Your task to perform on an android device: change the upload size in google photos Image 0: 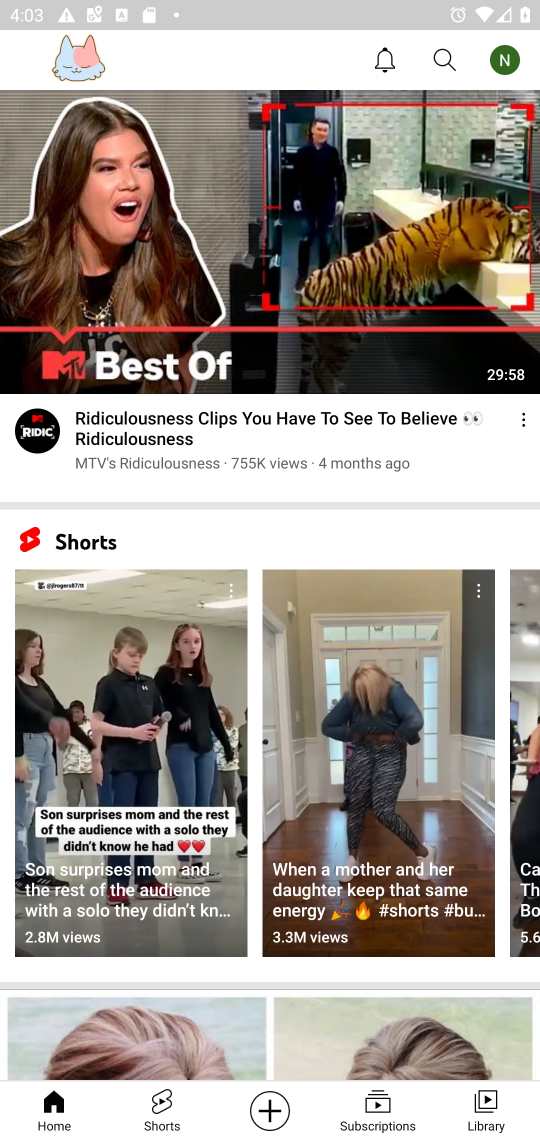
Step 0: press home button
Your task to perform on an android device: change the upload size in google photos Image 1: 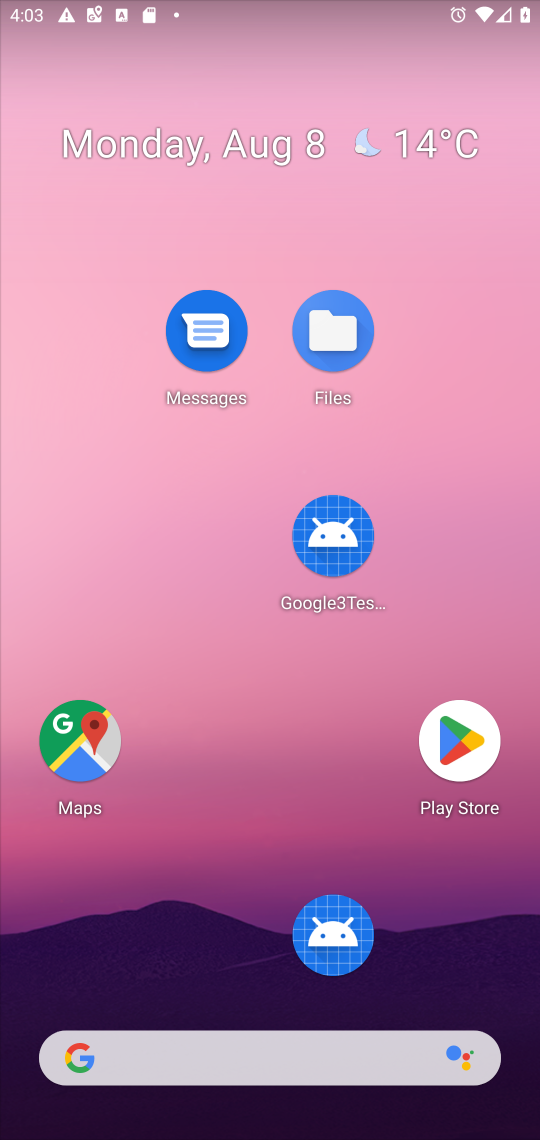
Step 1: drag from (183, 1087) to (361, 217)
Your task to perform on an android device: change the upload size in google photos Image 2: 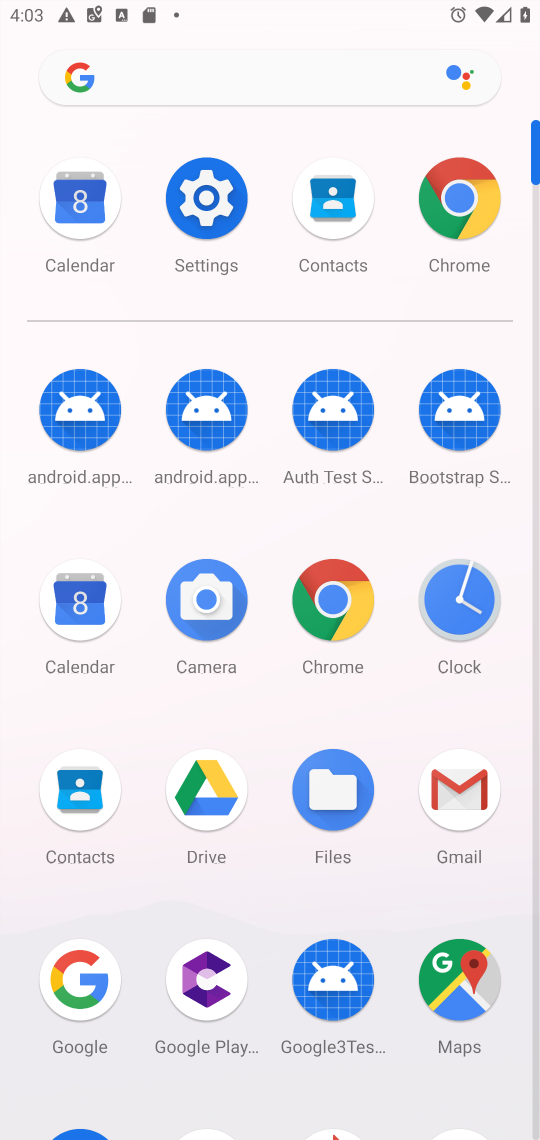
Step 2: drag from (381, 902) to (481, 579)
Your task to perform on an android device: change the upload size in google photos Image 3: 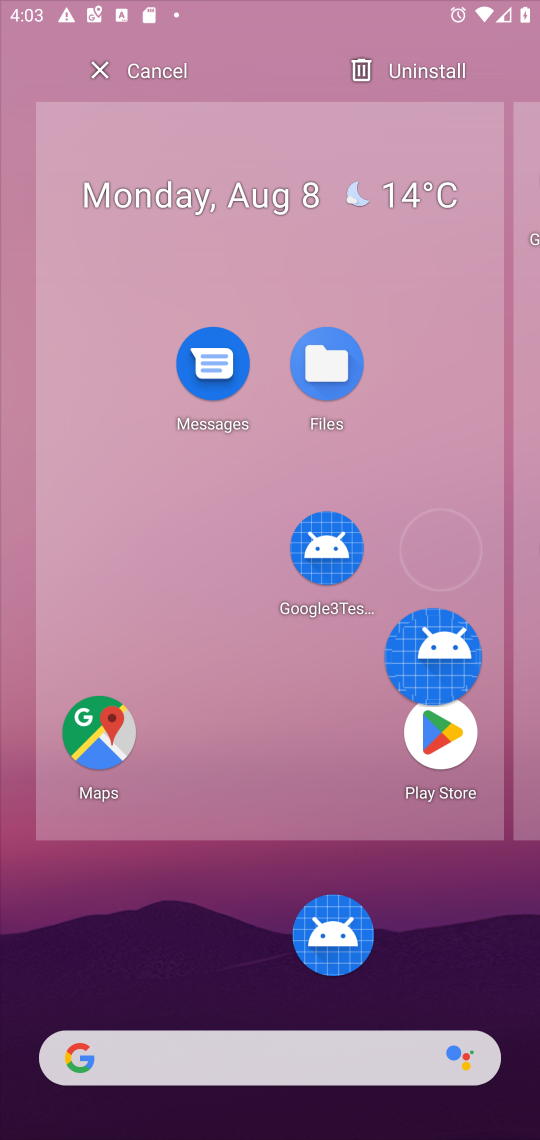
Step 3: click (337, 677)
Your task to perform on an android device: change the upload size in google photos Image 4: 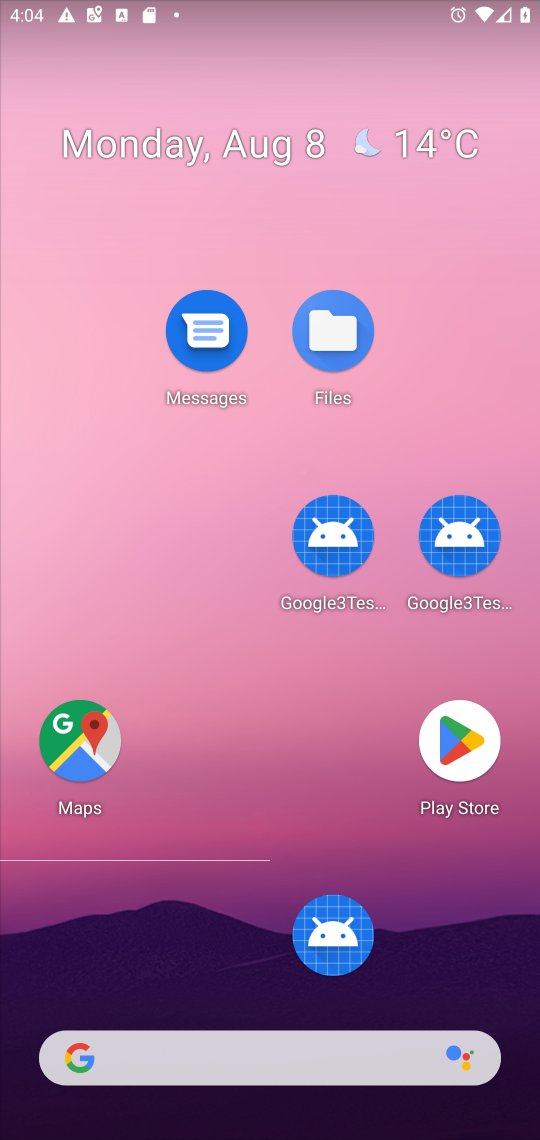
Step 4: drag from (194, 1032) to (180, 160)
Your task to perform on an android device: change the upload size in google photos Image 5: 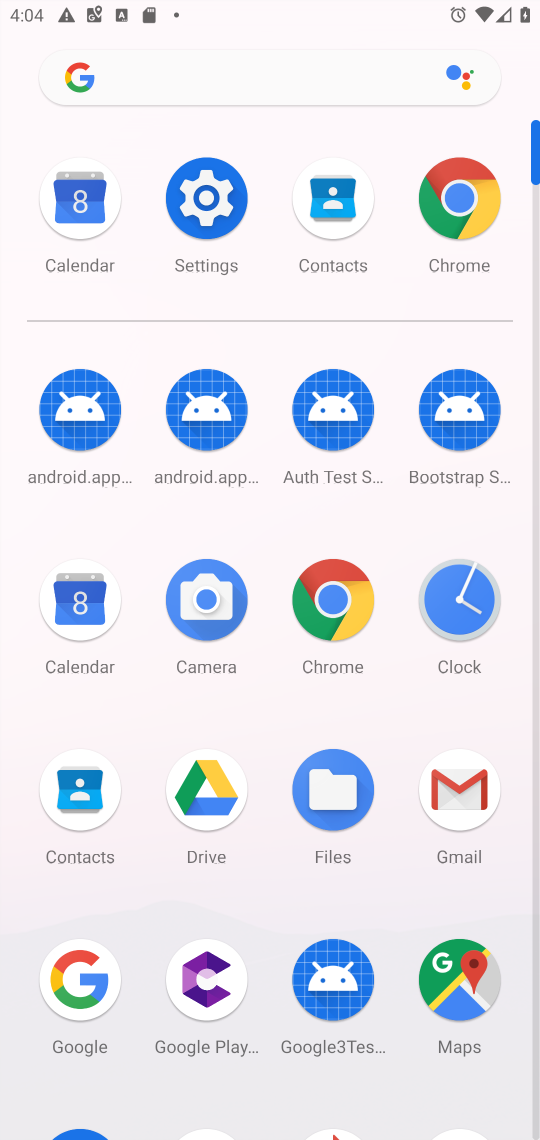
Step 5: drag from (393, 944) to (391, 335)
Your task to perform on an android device: change the upload size in google photos Image 6: 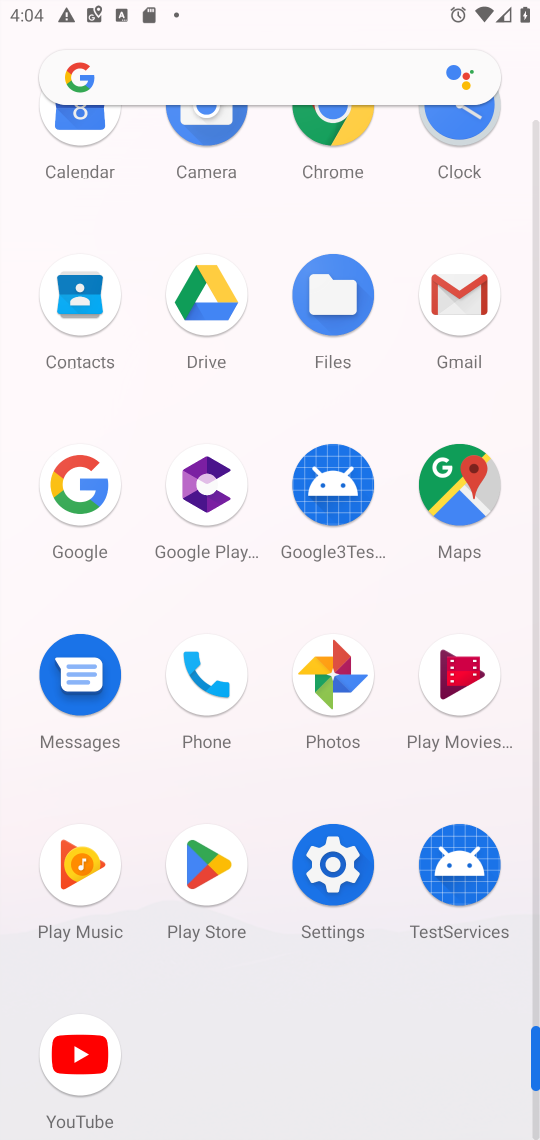
Step 6: click (330, 683)
Your task to perform on an android device: change the upload size in google photos Image 7: 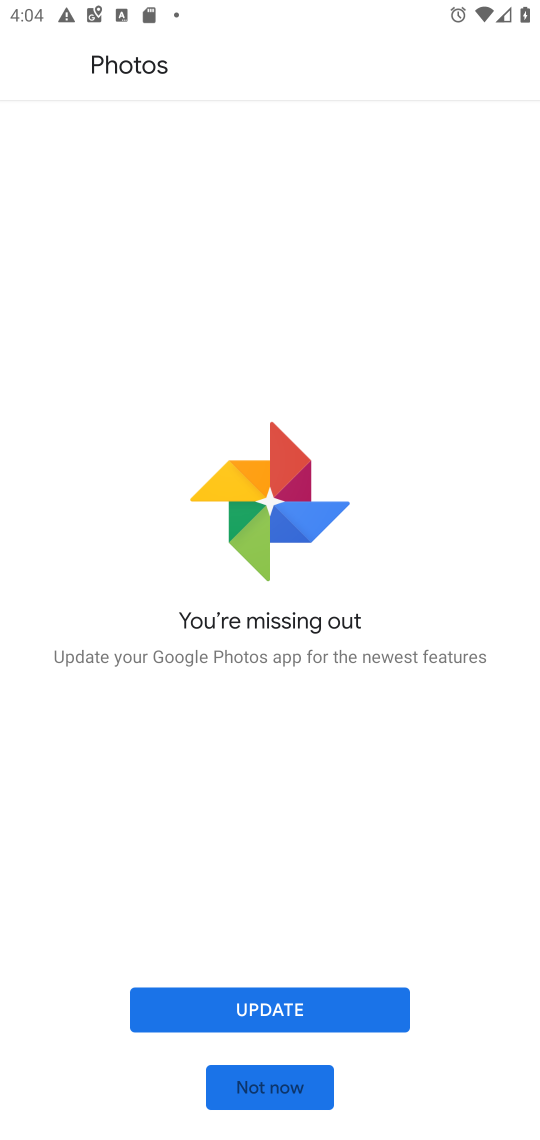
Step 7: click (278, 1011)
Your task to perform on an android device: change the upload size in google photos Image 8: 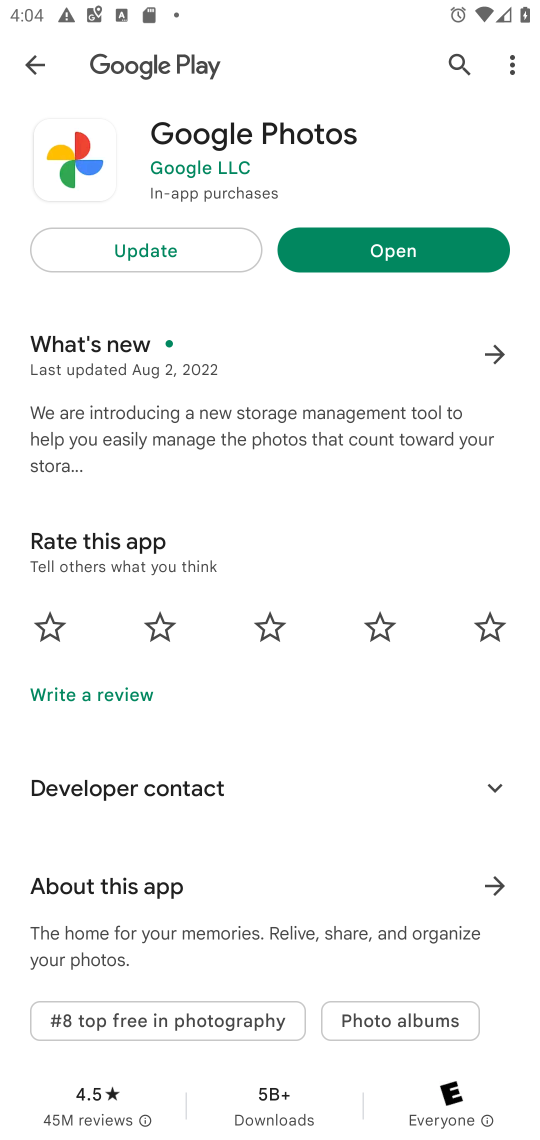
Step 8: click (200, 249)
Your task to perform on an android device: change the upload size in google photos Image 9: 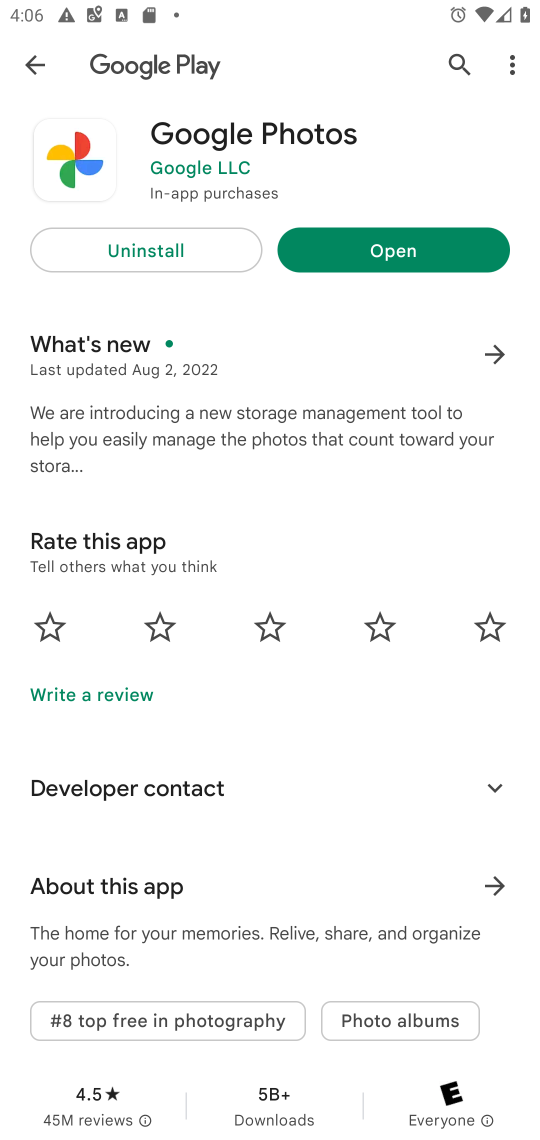
Step 9: click (417, 244)
Your task to perform on an android device: change the upload size in google photos Image 10: 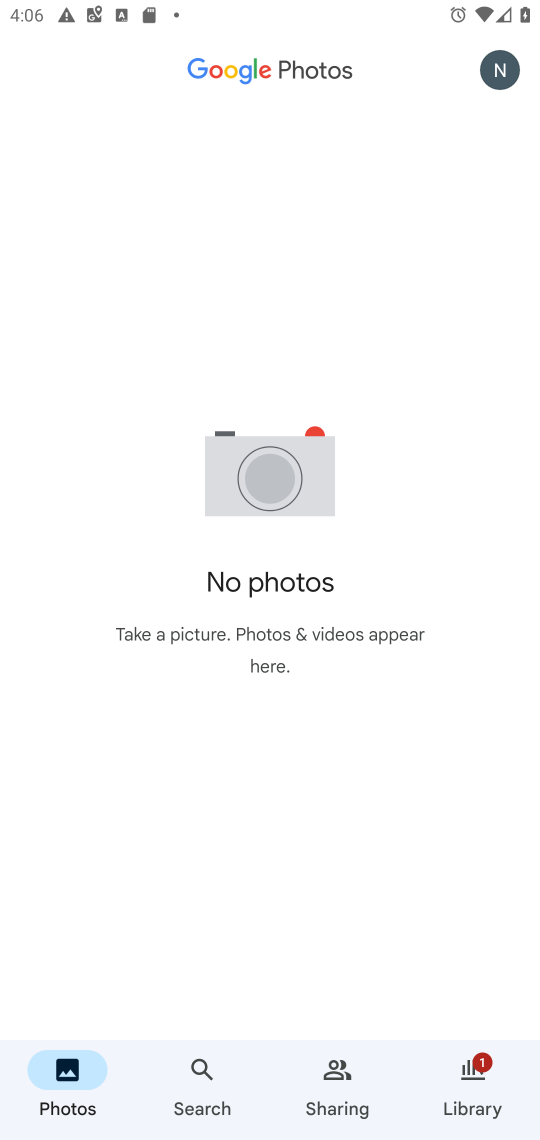
Step 10: click (490, 69)
Your task to perform on an android device: change the upload size in google photos Image 11: 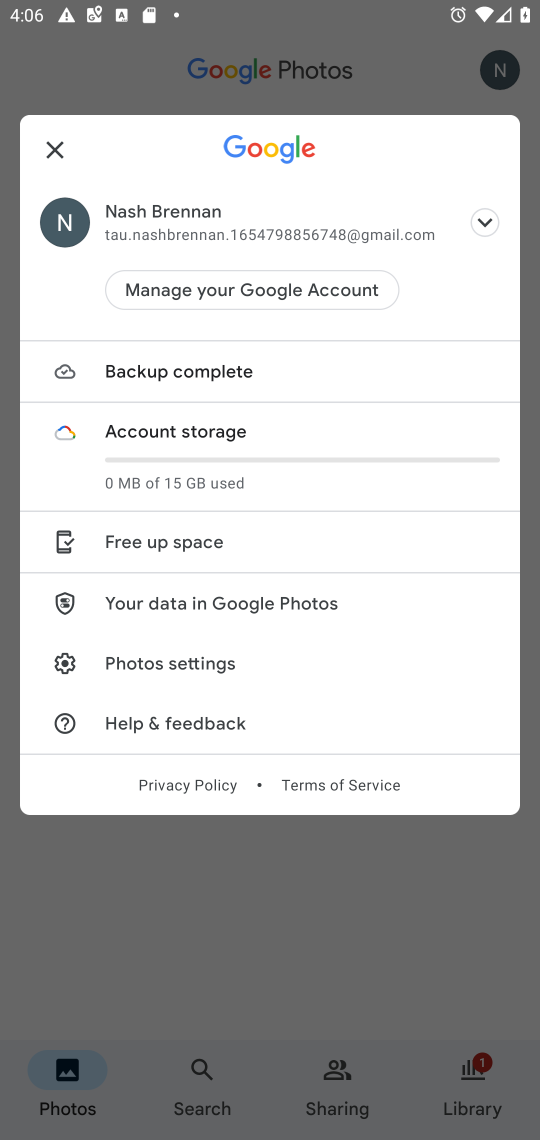
Step 11: click (136, 659)
Your task to perform on an android device: change the upload size in google photos Image 12: 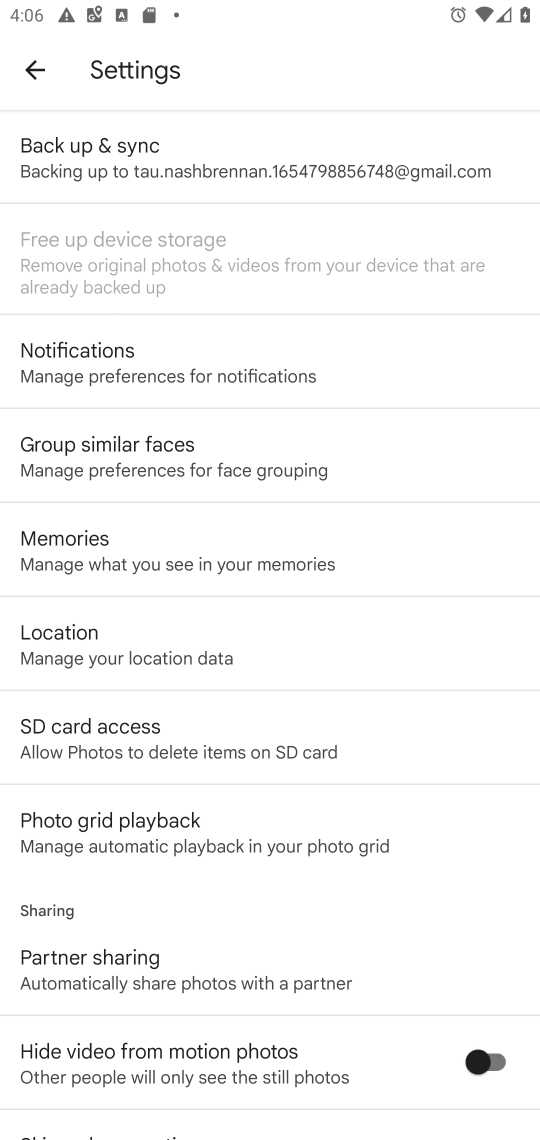
Step 12: click (222, 168)
Your task to perform on an android device: change the upload size in google photos Image 13: 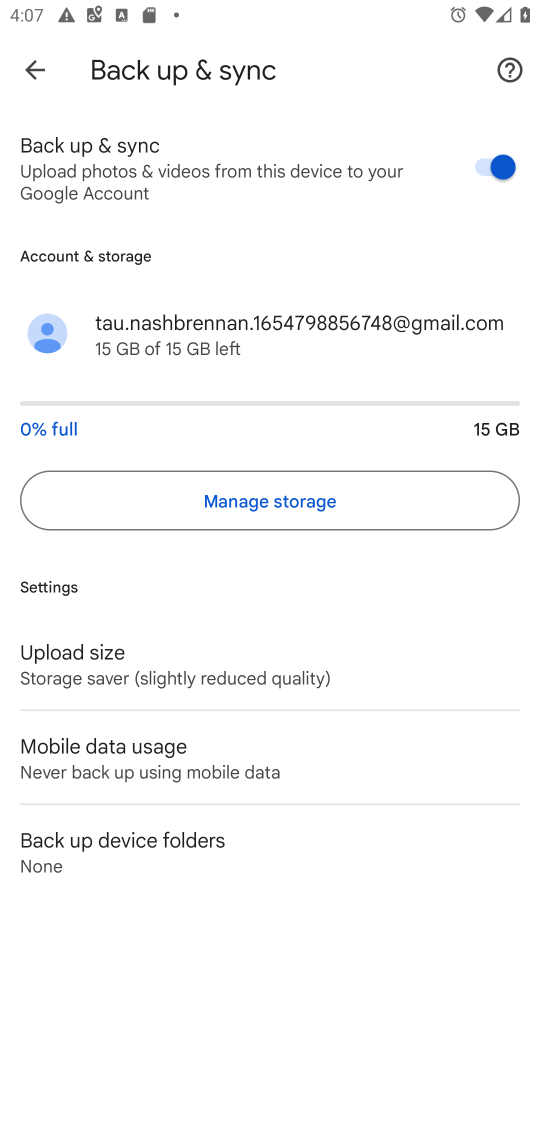
Step 13: click (132, 681)
Your task to perform on an android device: change the upload size in google photos Image 14: 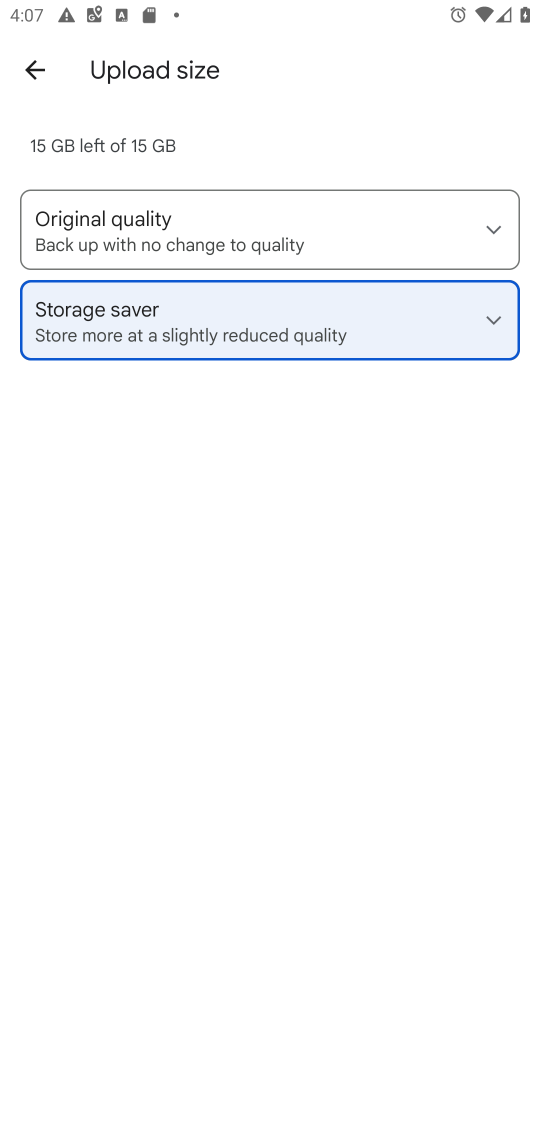
Step 14: click (115, 211)
Your task to perform on an android device: change the upload size in google photos Image 15: 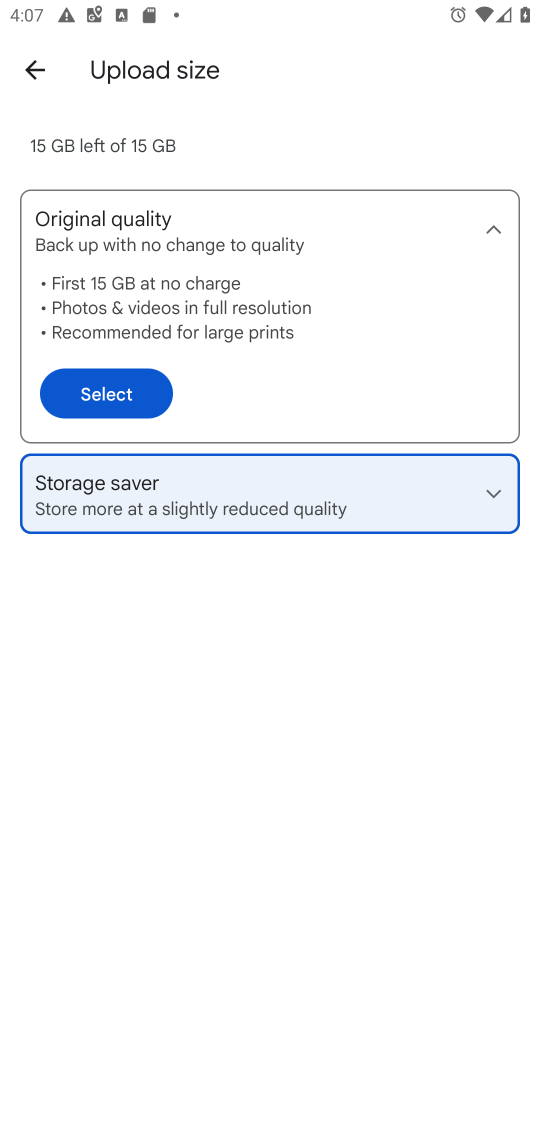
Step 15: click (122, 379)
Your task to perform on an android device: change the upload size in google photos Image 16: 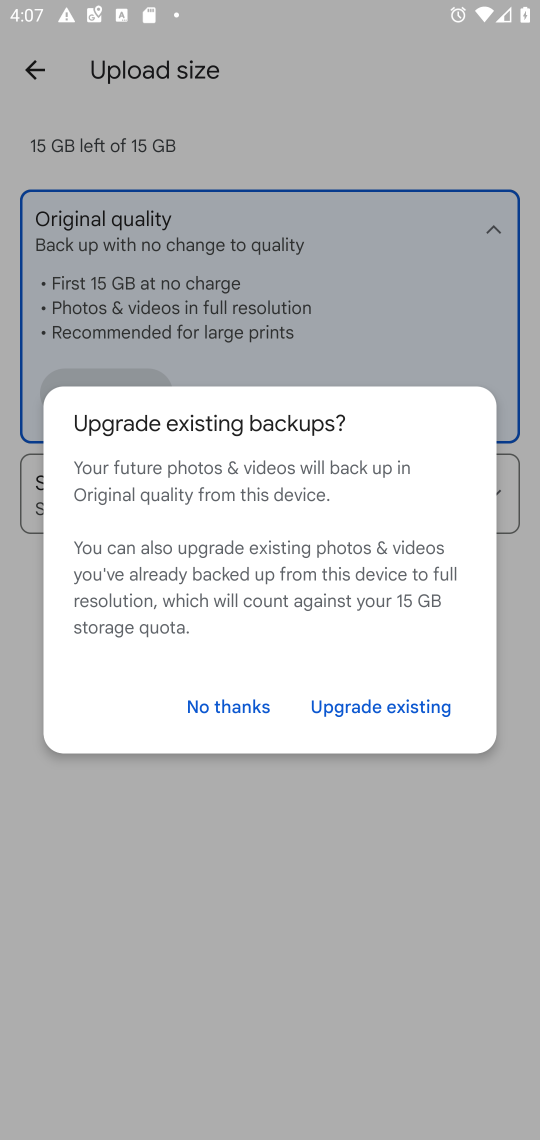
Step 16: click (373, 699)
Your task to perform on an android device: change the upload size in google photos Image 17: 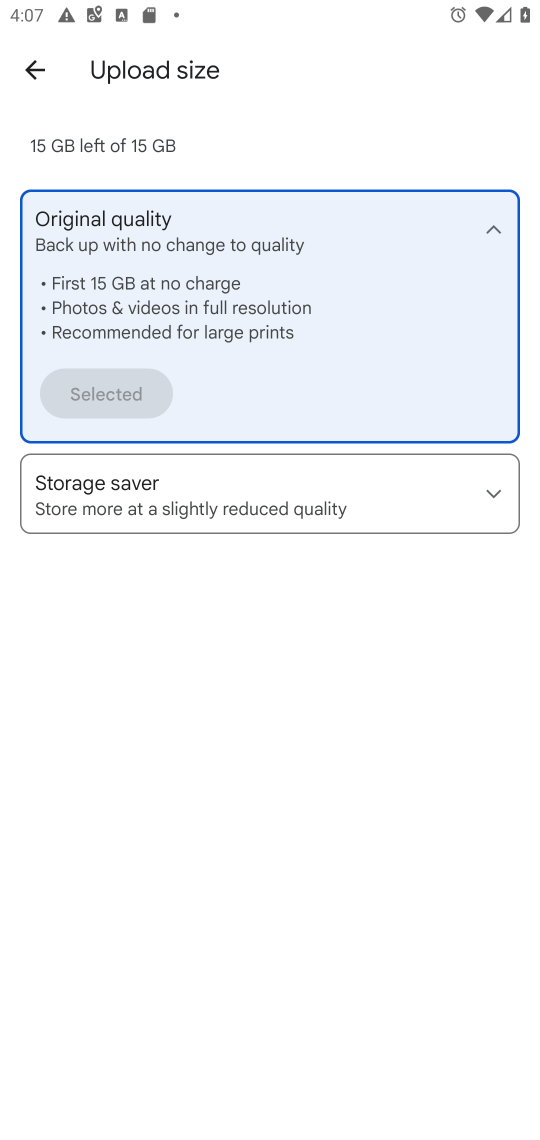
Step 17: task complete